Your task to perform on an android device: Open notification settings Image 0: 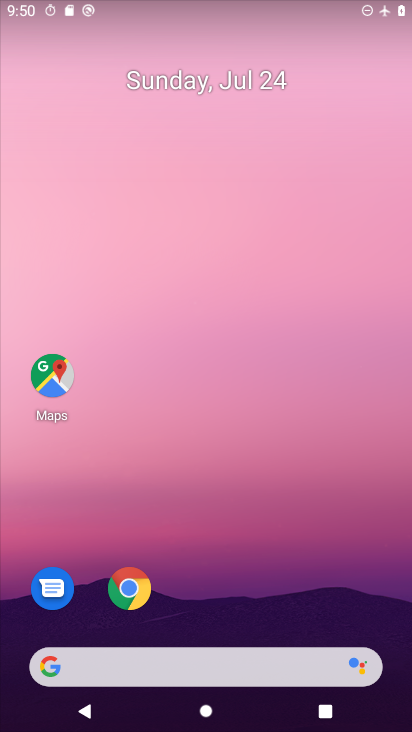
Step 0: drag from (271, 614) to (291, 63)
Your task to perform on an android device: Open notification settings Image 1: 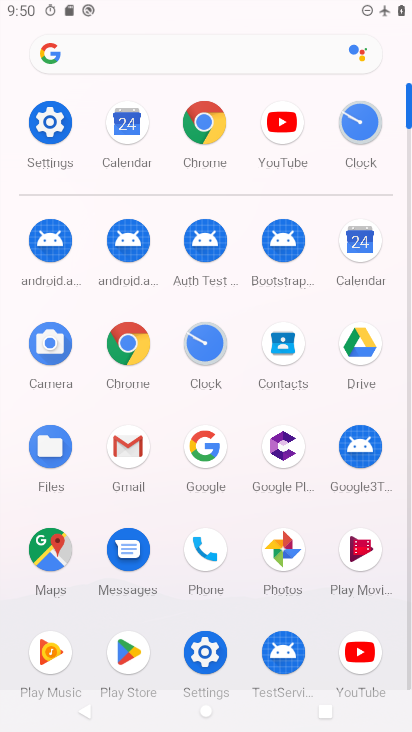
Step 1: click (39, 128)
Your task to perform on an android device: Open notification settings Image 2: 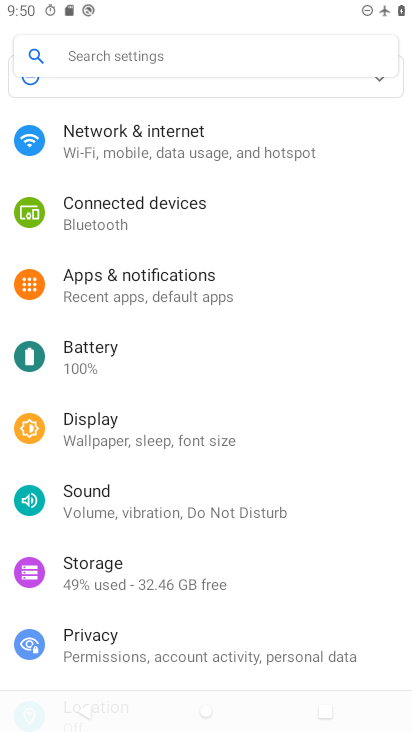
Step 2: click (164, 278)
Your task to perform on an android device: Open notification settings Image 3: 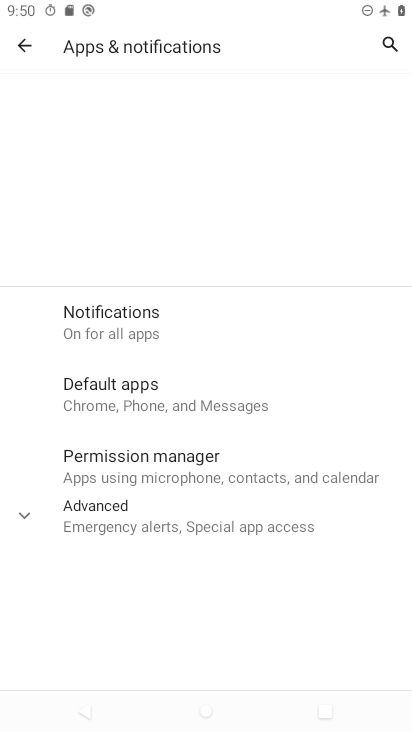
Step 3: click (113, 320)
Your task to perform on an android device: Open notification settings Image 4: 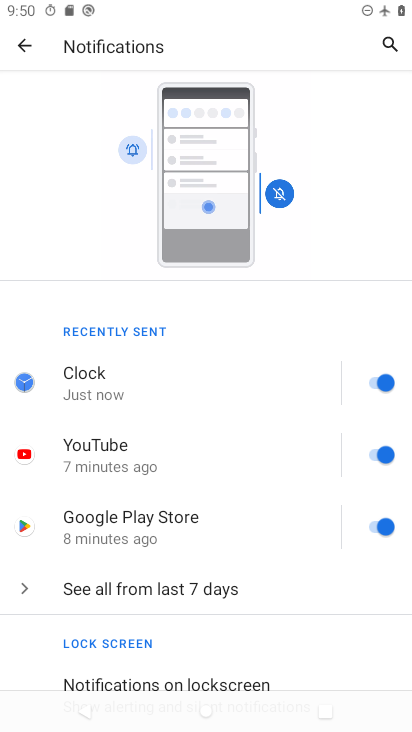
Step 4: task complete